Your task to perform on an android device: open a new tab in the chrome app Image 0: 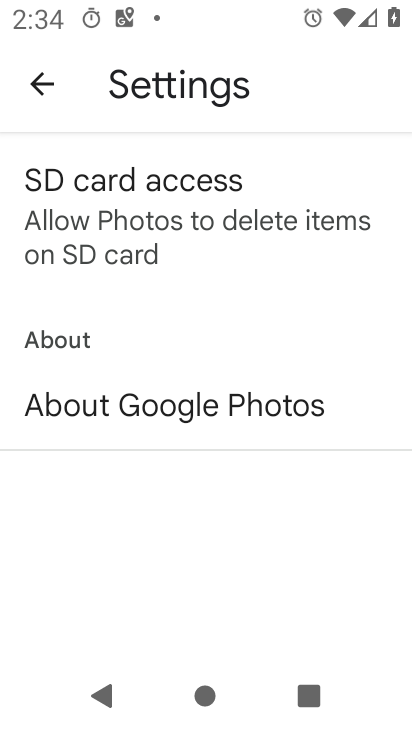
Step 0: press home button
Your task to perform on an android device: open a new tab in the chrome app Image 1: 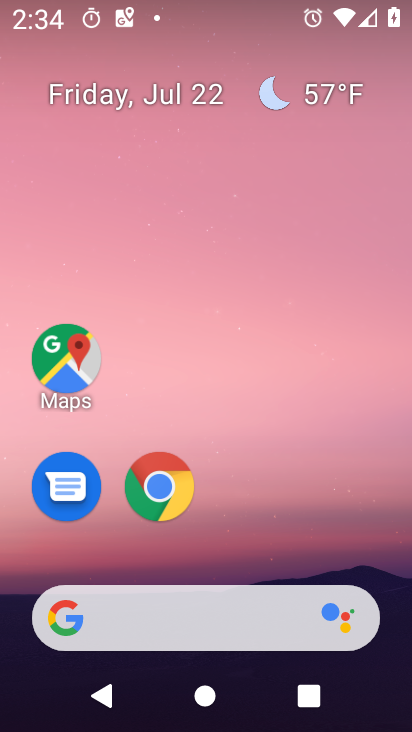
Step 1: drag from (361, 556) to (357, 88)
Your task to perform on an android device: open a new tab in the chrome app Image 2: 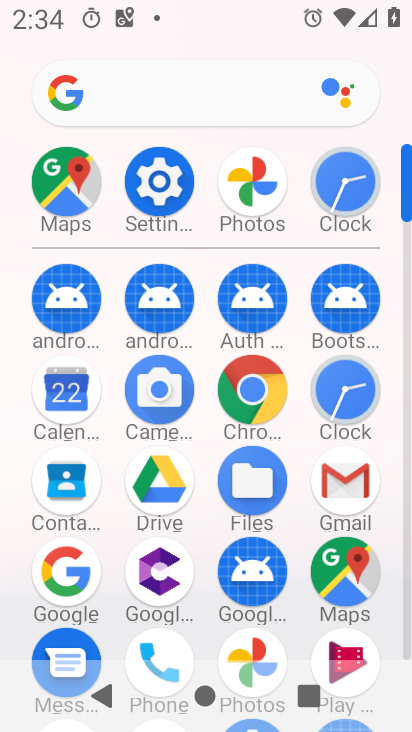
Step 2: click (256, 398)
Your task to perform on an android device: open a new tab in the chrome app Image 3: 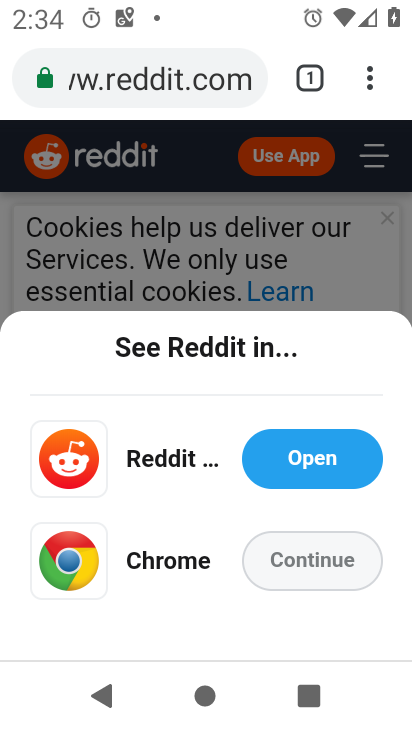
Step 3: click (369, 85)
Your task to perform on an android device: open a new tab in the chrome app Image 4: 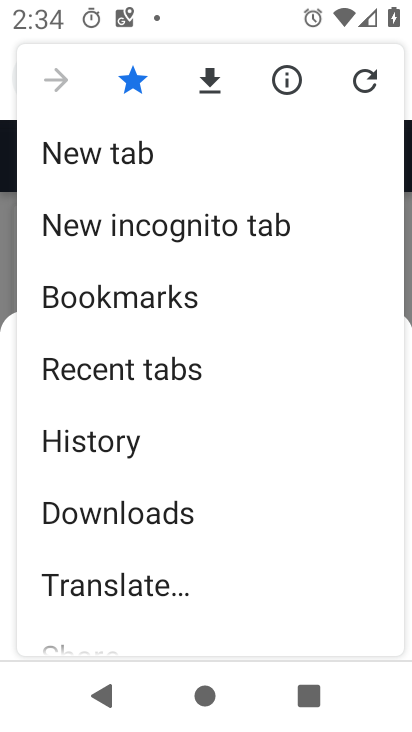
Step 4: click (202, 154)
Your task to perform on an android device: open a new tab in the chrome app Image 5: 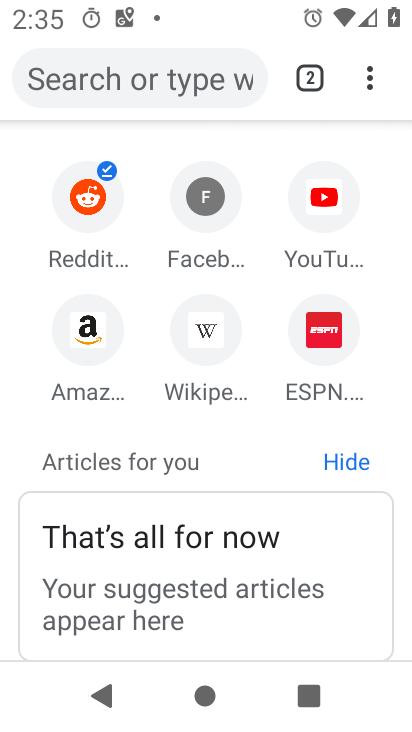
Step 5: task complete